Your task to perform on an android device: Open my contact list Image 0: 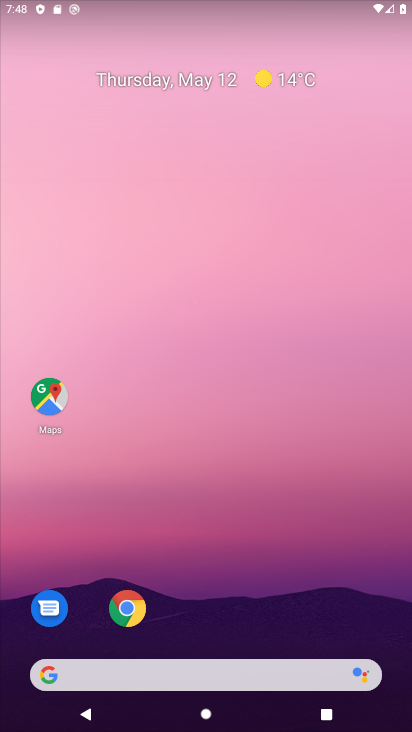
Step 0: drag from (258, 626) to (376, 83)
Your task to perform on an android device: Open my contact list Image 1: 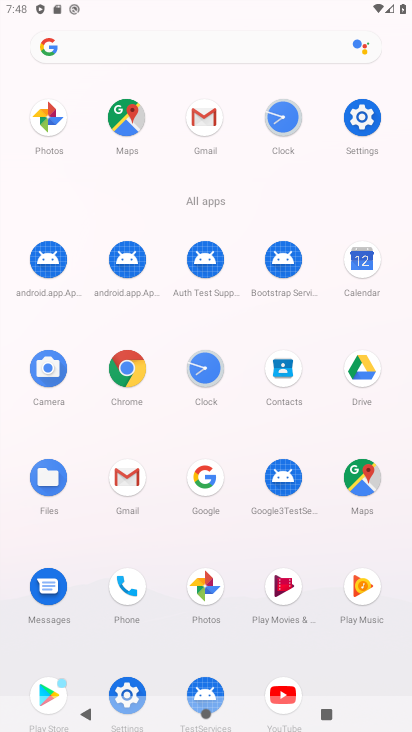
Step 1: click (287, 362)
Your task to perform on an android device: Open my contact list Image 2: 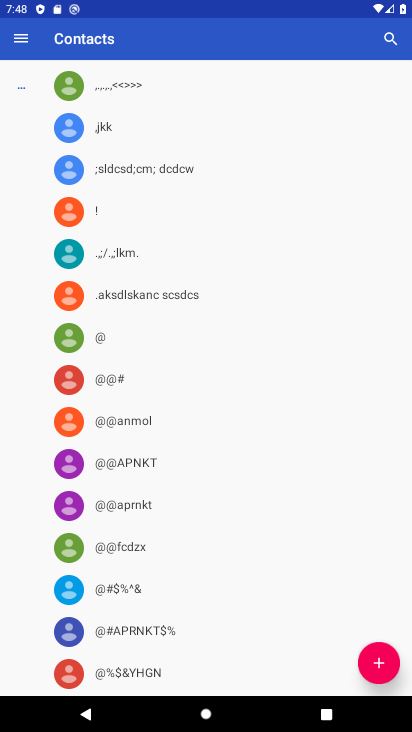
Step 2: task complete